Your task to perform on an android device: delete browsing data in the chrome app Image 0: 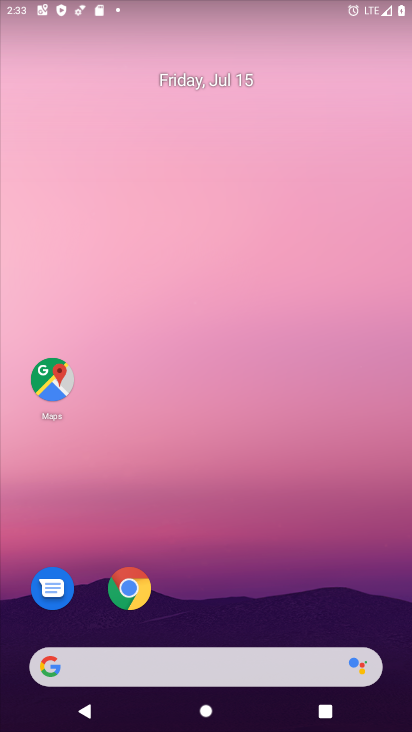
Step 0: click (132, 588)
Your task to perform on an android device: delete browsing data in the chrome app Image 1: 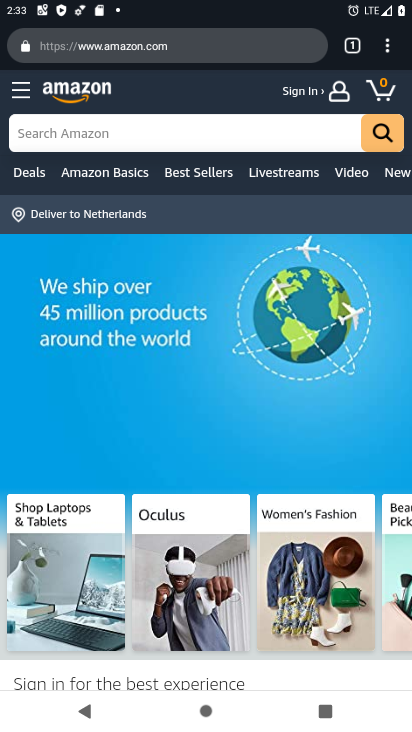
Step 1: click (389, 46)
Your task to perform on an android device: delete browsing data in the chrome app Image 2: 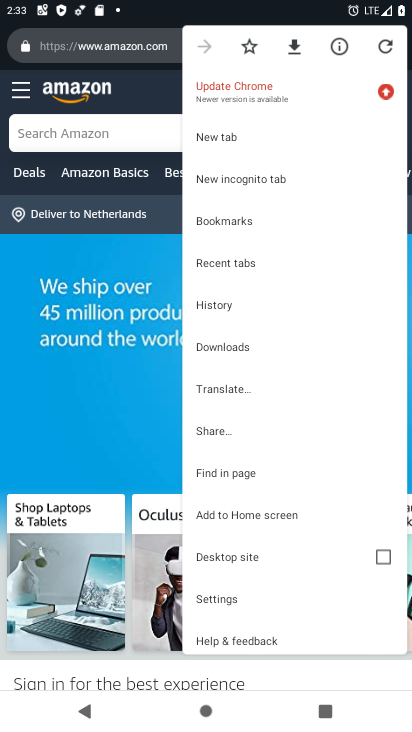
Step 2: click (216, 598)
Your task to perform on an android device: delete browsing data in the chrome app Image 3: 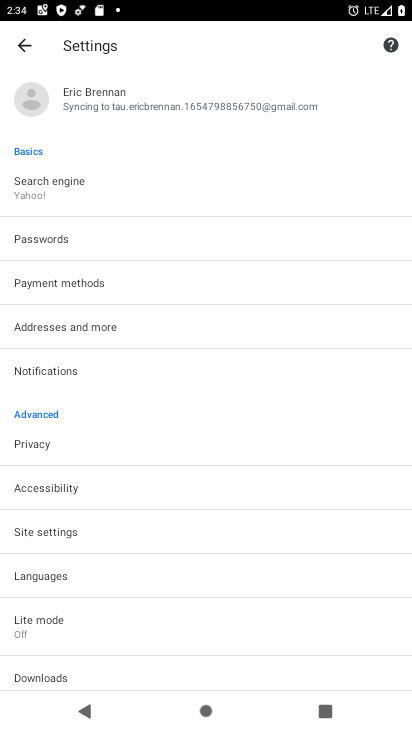
Step 3: click (39, 446)
Your task to perform on an android device: delete browsing data in the chrome app Image 4: 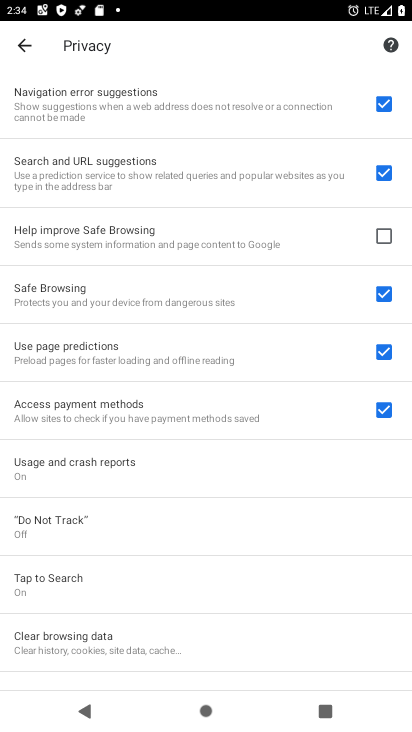
Step 4: click (84, 646)
Your task to perform on an android device: delete browsing data in the chrome app Image 5: 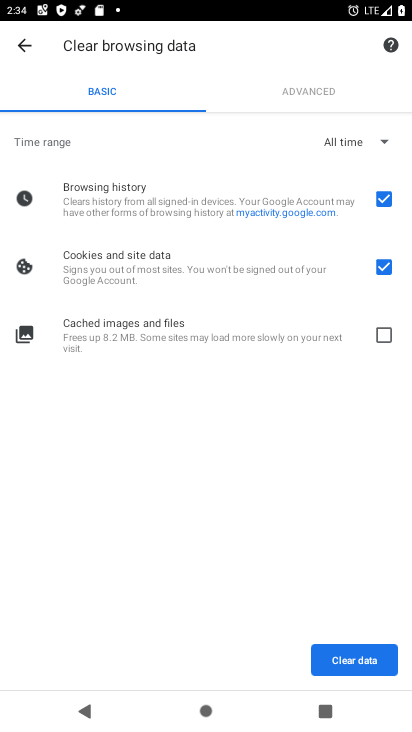
Step 5: click (381, 336)
Your task to perform on an android device: delete browsing data in the chrome app Image 6: 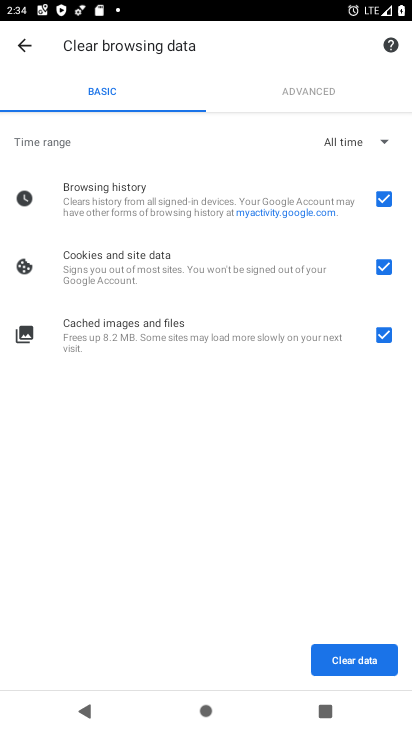
Step 6: click (337, 665)
Your task to perform on an android device: delete browsing data in the chrome app Image 7: 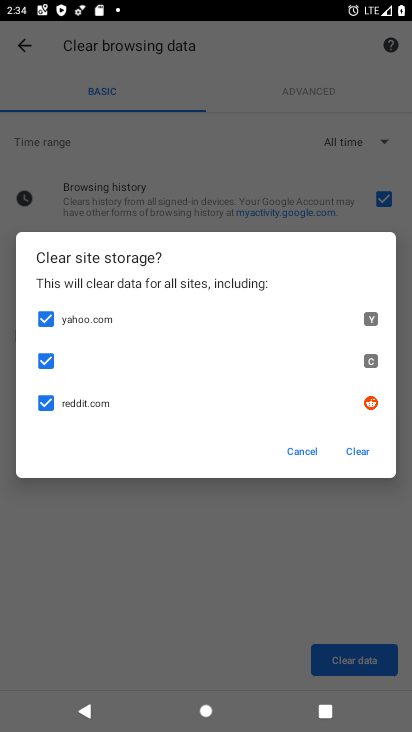
Step 7: click (356, 453)
Your task to perform on an android device: delete browsing data in the chrome app Image 8: 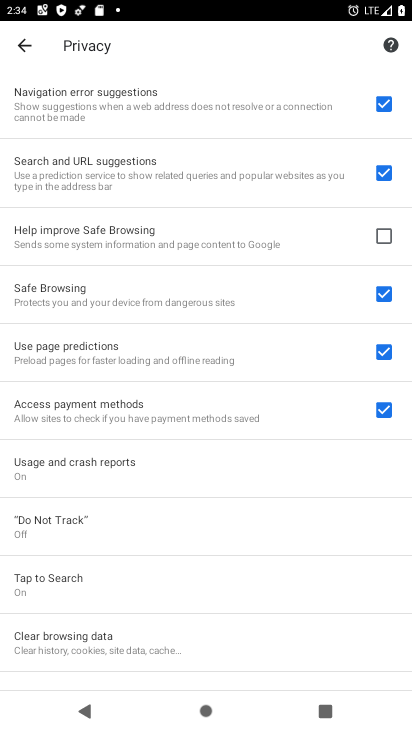
Step 8: task complete